Your task to perform on an android device: Show me popular games on the Play Store Image 0: 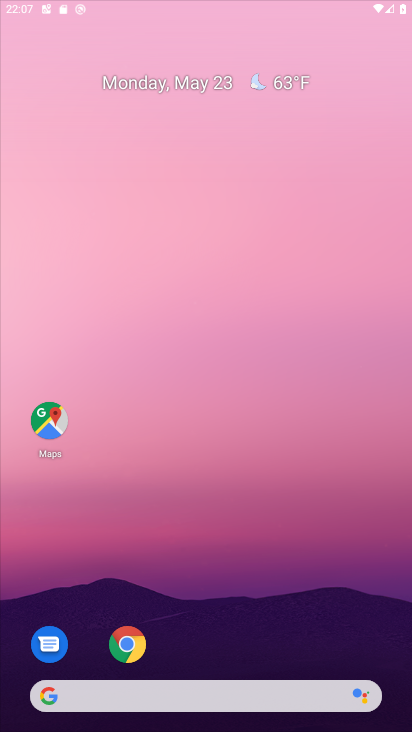
Step 0: press home button
Your task to perform on an android device: Show me popular games on the Play Store Image 1: 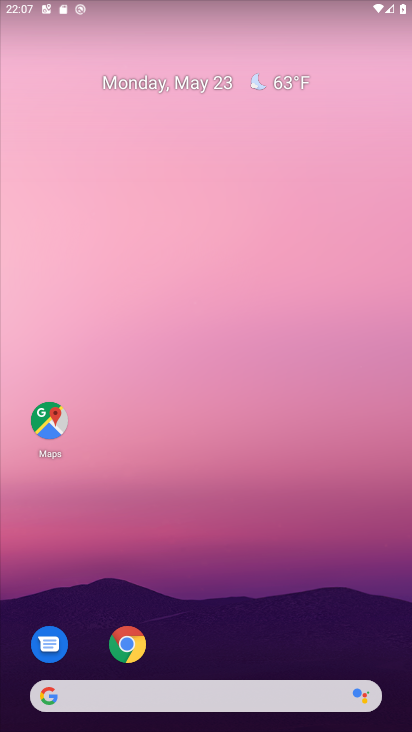
Step 1: drag from (211, 661) to (220, 23)
Your task to perform on an android device: Show me popular games on the Play Store Image 2: 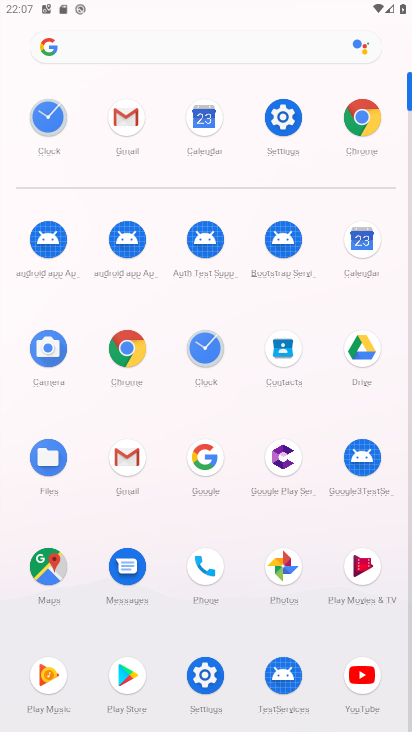
Step 2: click (124, 668)
Your task to perform on an android device: Show me popular games on the Play Store Image 3: 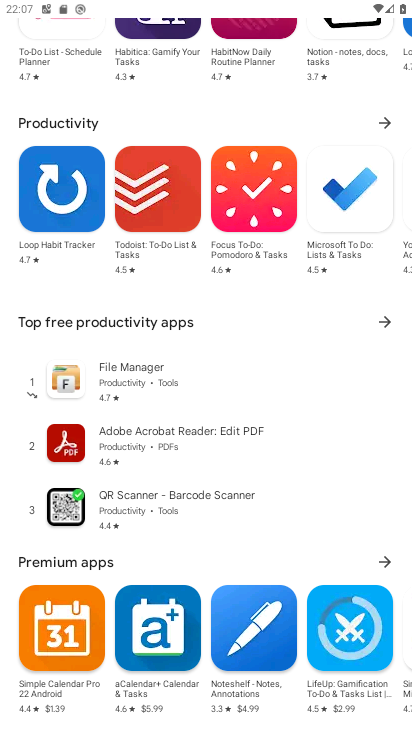
Step 3: drag from (184, 115) to (192, 643)
Your task to perform on an android device: Show me popular games on the Play Store Image 4: 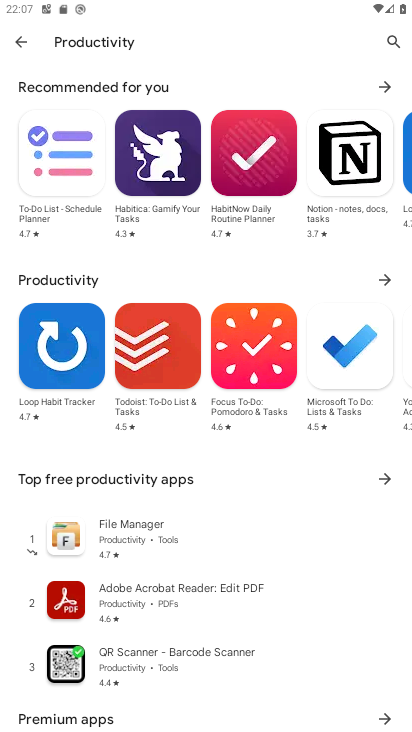
Step 4: click (26, 39)
Your task to perform on an android device: Show me popular games on the Play Store Image 5: 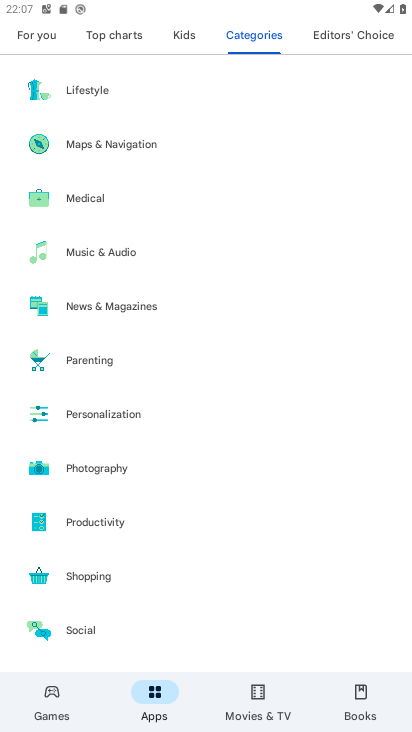
Step 5: click (48, 695)
Your task to perform on an android device: Show me popular games on the Play Store Image 6: 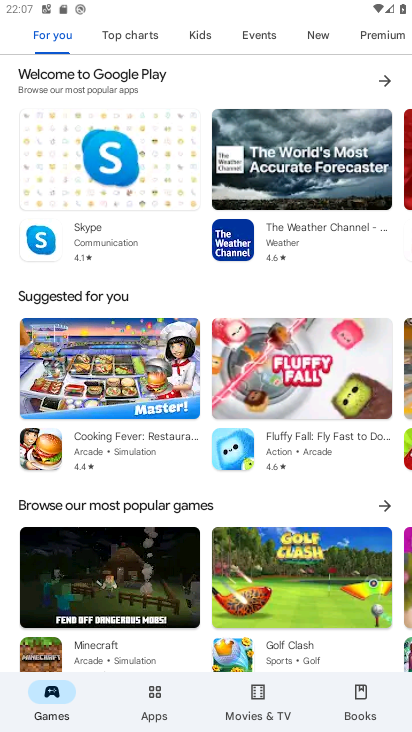
Step 6: click (385, 504)
Your task to perform on an android device: Show me popular games on the Play Store Image 7: 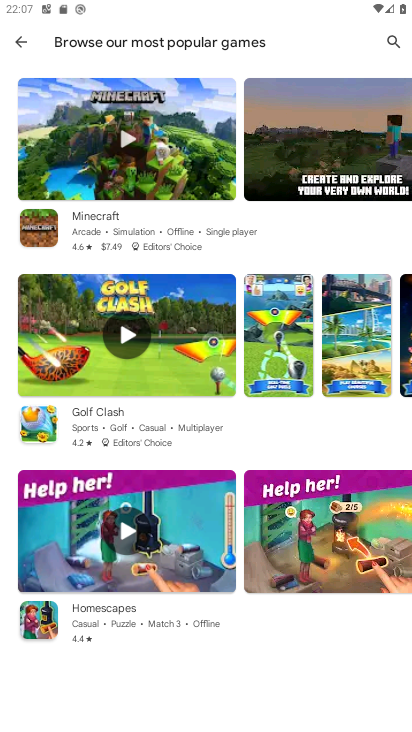
Step 7: task complete